Your task to perform on an android device: Go to Reddit.com Image 0: 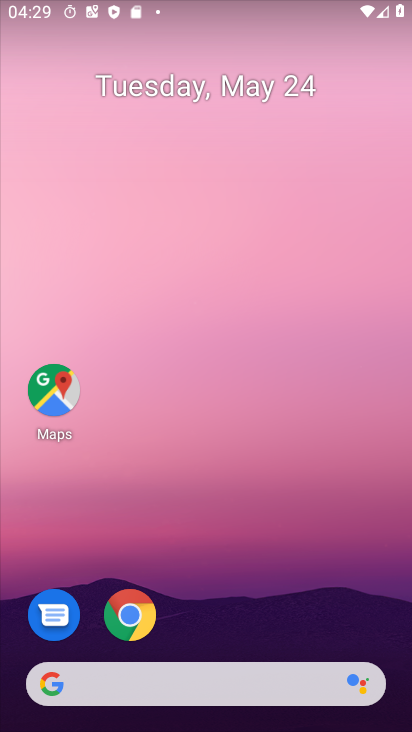
Step 0: click (136, 618)
Your task to perform on an android device: Go to Reddit.com Image 1: 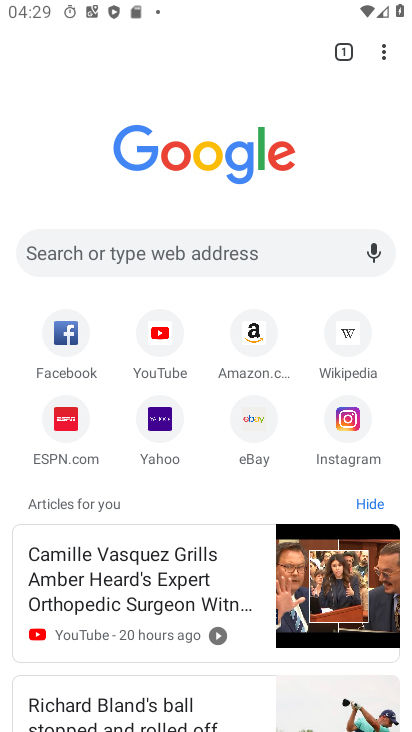
Step 1: click (213, 254)
Your task to perform on an android device: Go to Reddit.com Image 2: 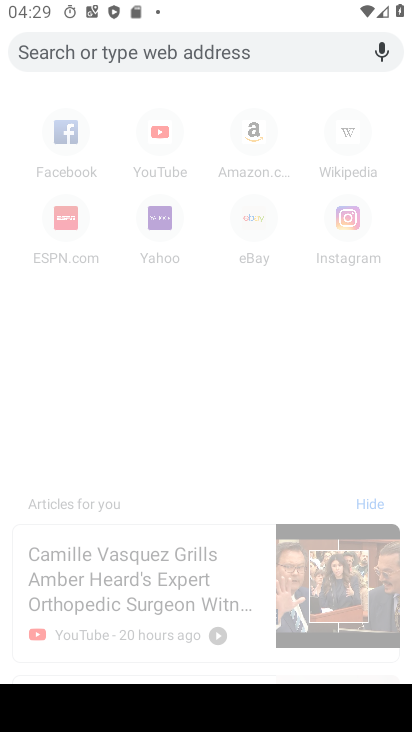
Step 2: type "reddit.com"
Your task to perform on an android device: Go to Reddit.com Image 3: 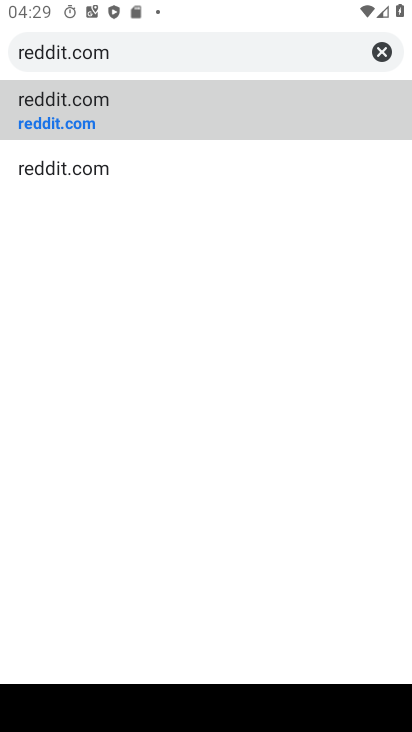
Step 3: click (190, 112)
Your task to perform on an android device: Go to Reddit.com Image 4: 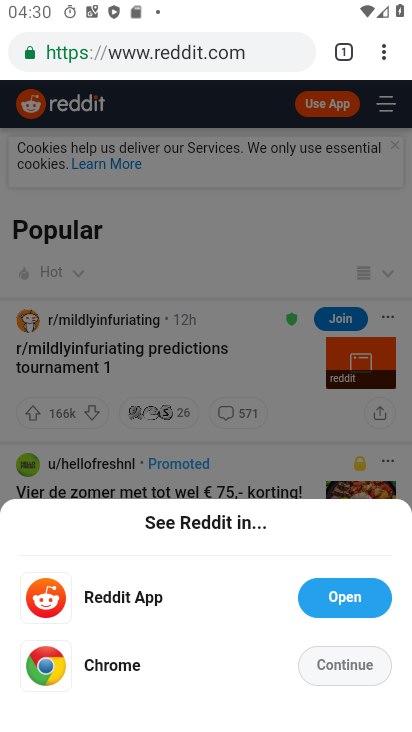
Step 4: task complete